Your task to perform on an android device: Open Reddit.com Image 0: 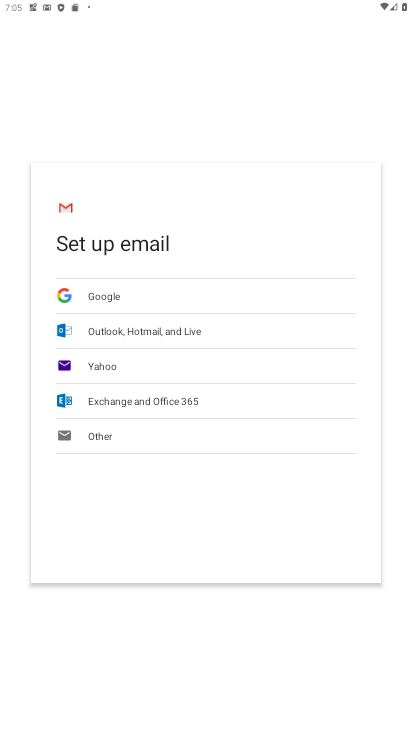
Step 0: press home button
Your task to perform on an android device: Open Reddit.com Image 1: 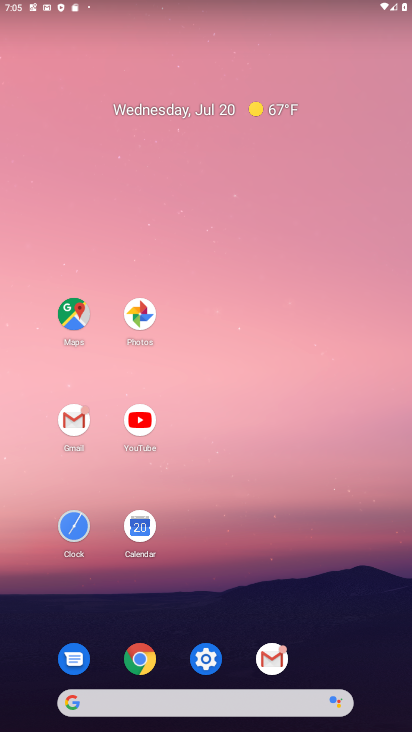
Step 1: click (131, 655)
Your task to perform on an android device: Open Reddit.com Image 2: 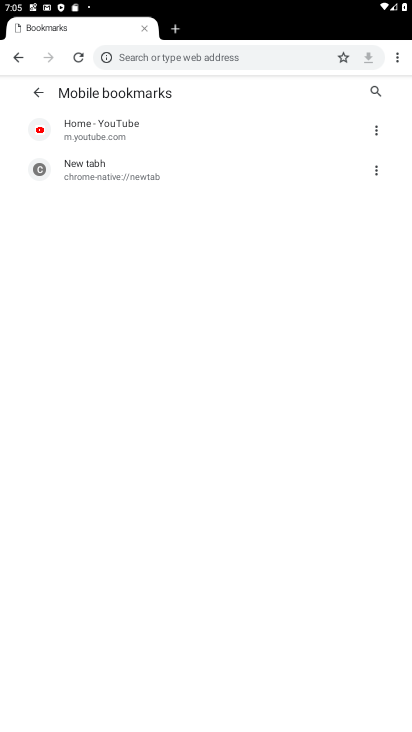
Step 2: click (401, 53)
Your task to perform on an android device: Open Reddit.com Image 3: 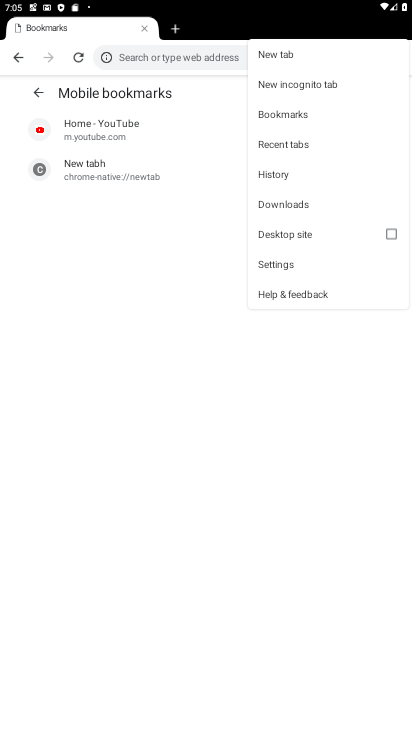
Step 3: click (275, 57)
Your task to perform on an android device: Open Reddit.com Image 4: 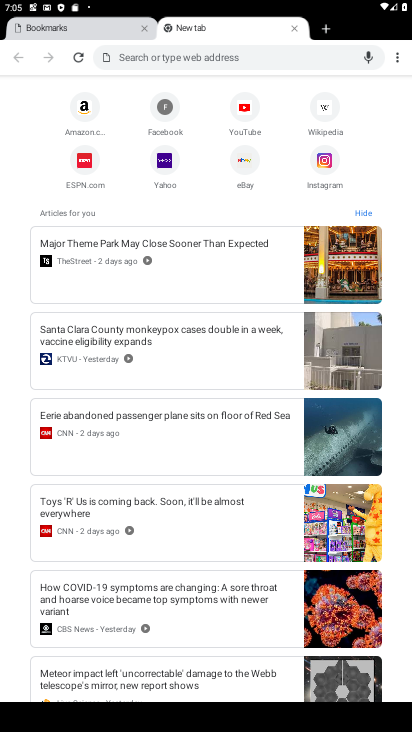
Step 4: click (188, 51)
Your task to perform on an android device: Open Reddit.com Image 5: 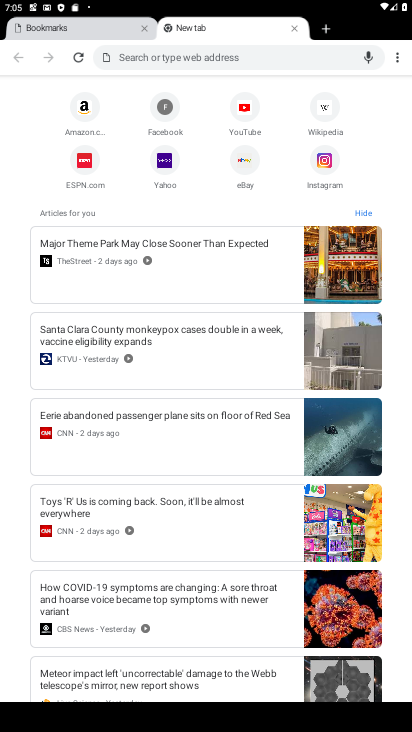
Step 5: type "reddit.com"
Your task to perform on an android device: Open Reddit.com Image 6: 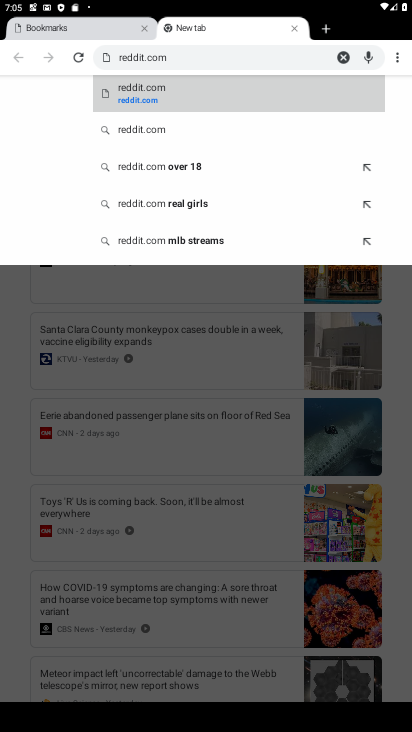
Step 6: click (132, 91)
Your task to perform on an android device: Open Reddit.com Image 7: 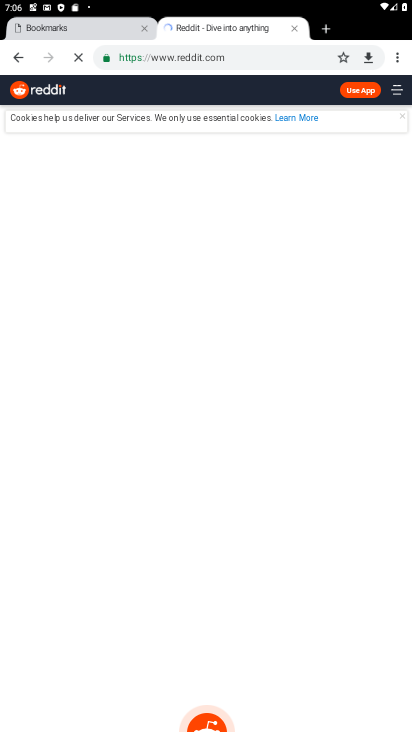
Step 7: task complete